Your task to perform on an android device: open a bookmark in the chrome app Image 0: 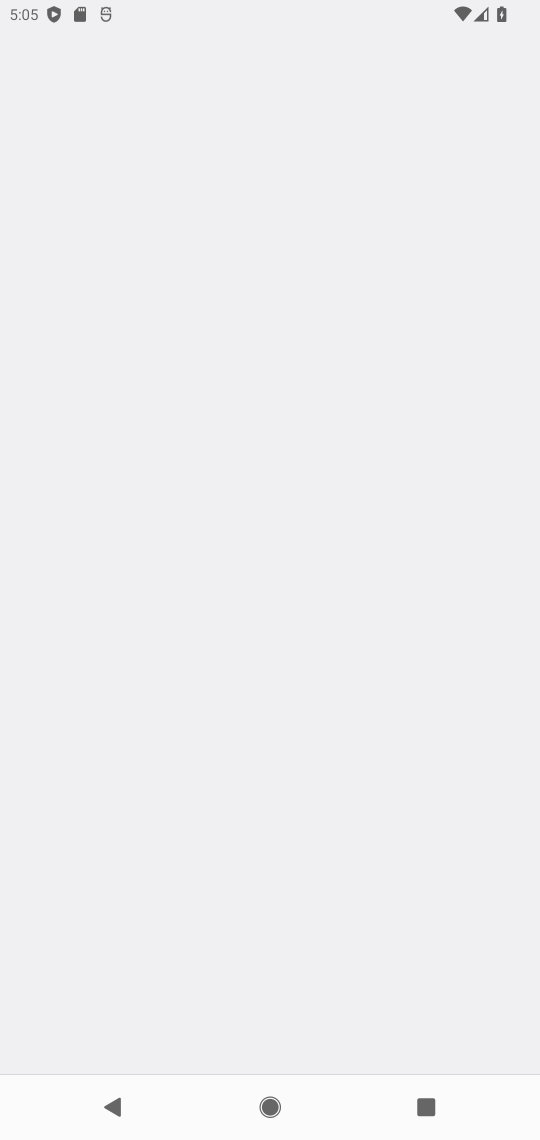
Step 0: drag from (432, 996) to (366, 267)
Your task to perform on an android device: open a bookmark in the chrome app Image 1: 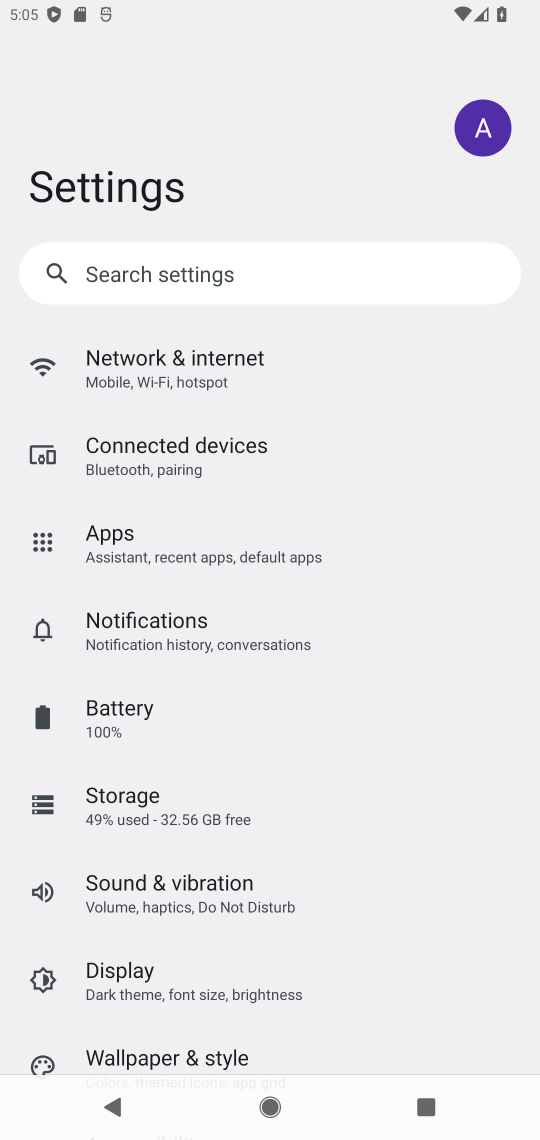
Step 1: press back button
Your task to perform on an android device: open a bookmark in the chrome app Image 2: 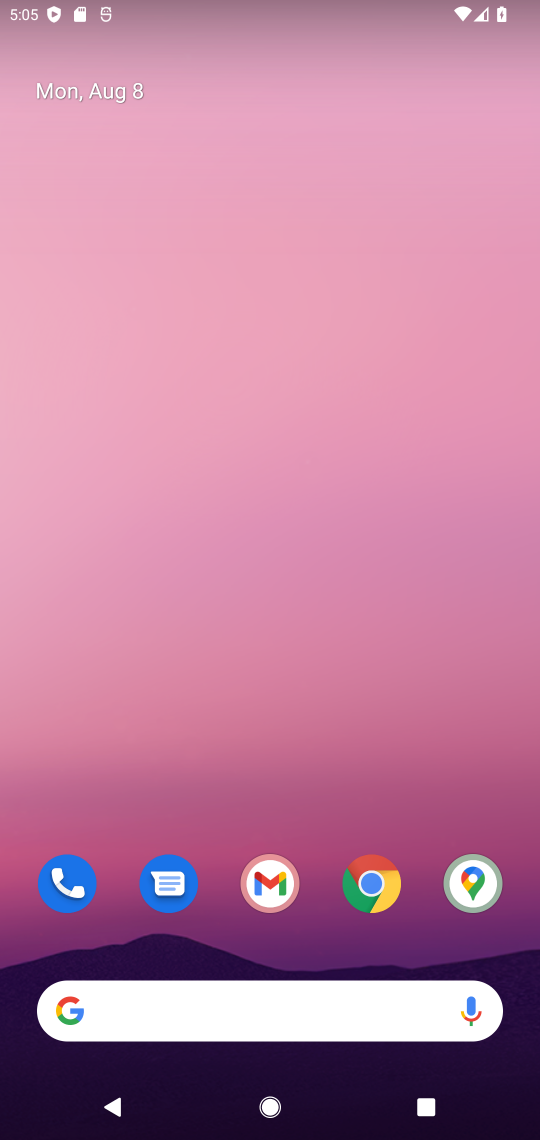
Step 2: drag from (423, 1087) to (287, 199)
Your task to perform on an android device: open a bookmark in the chrome app Image 3: 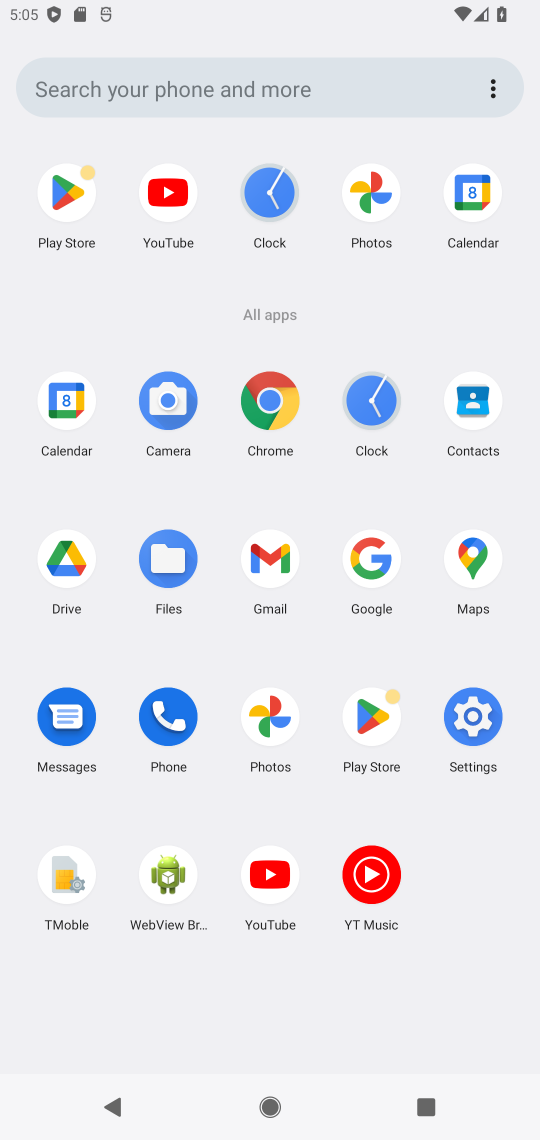
Step 3: click (269, 384)
Your task to perform on an android device: open a bookmark in the chrome app Image 4: 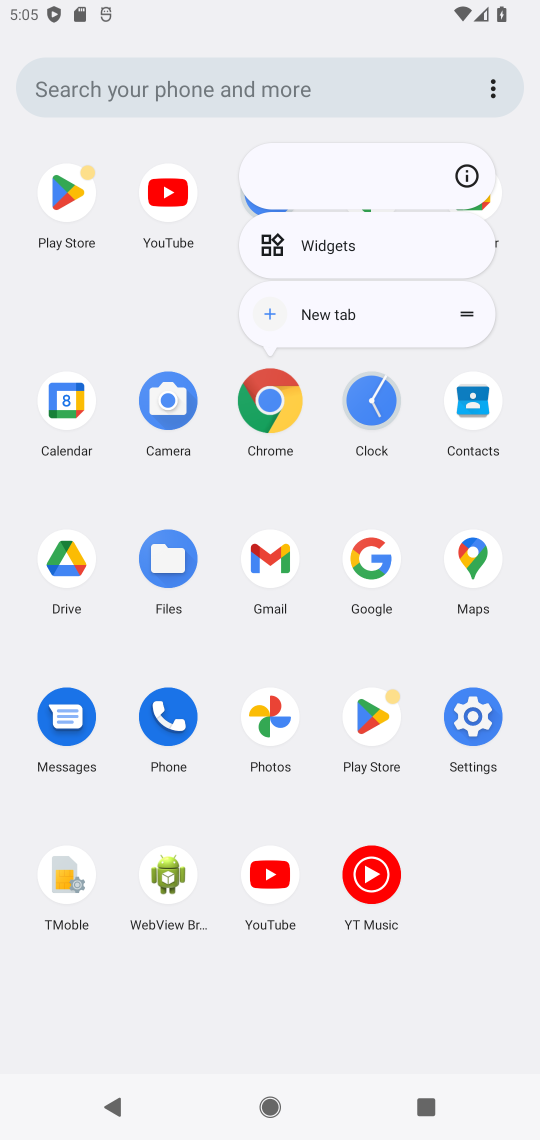
Step 4: click (273, 393)
Your task to perform on an android device: open a bookmark in the chrome app Image 5: 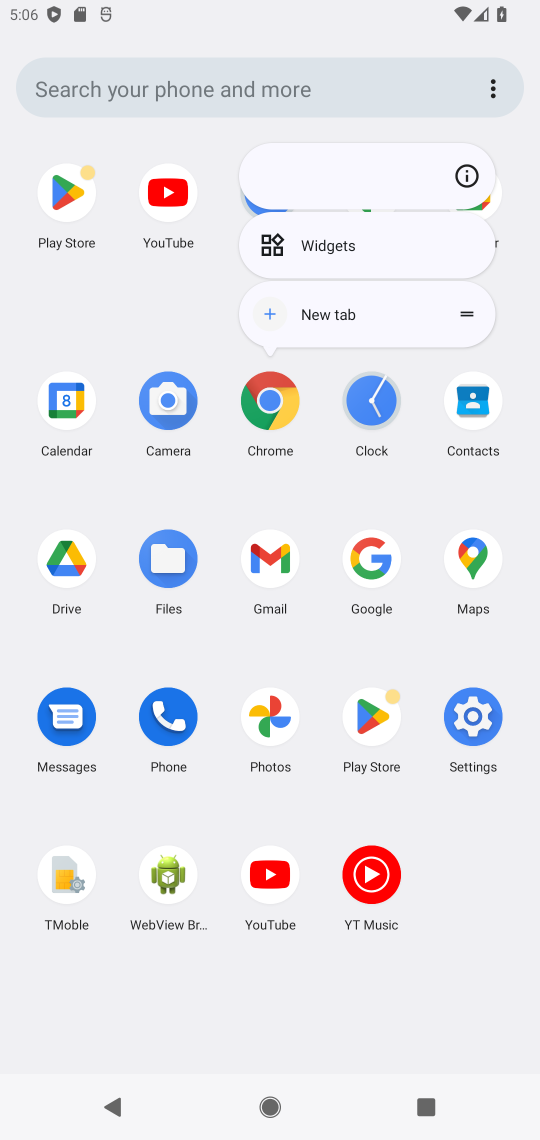
Step 5: click (275, 396)
Your task to perform on an android device: open a bookmark in the chrome app Image 6: 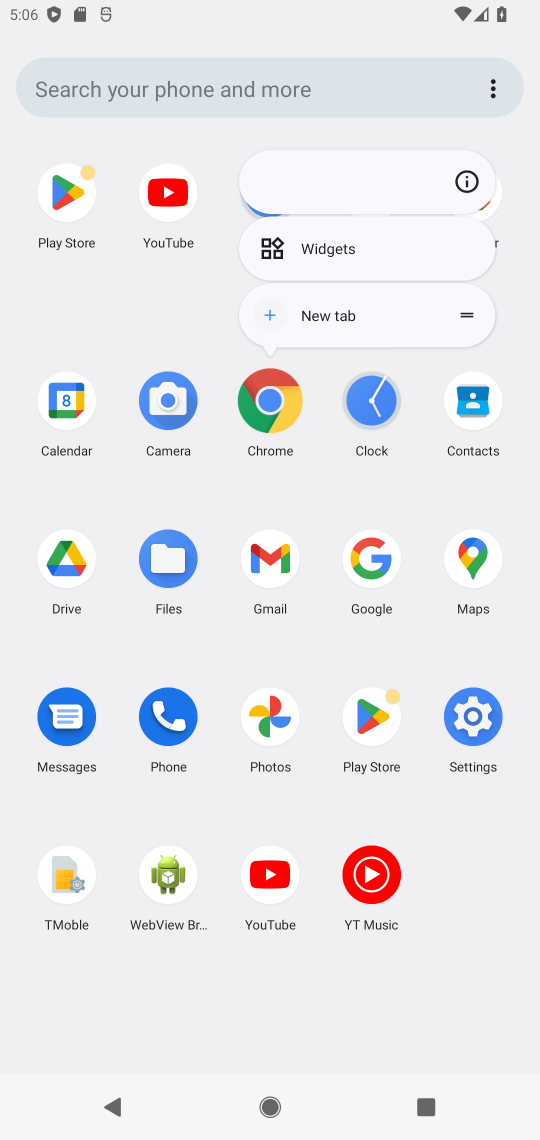
Step 6: click (264, 380)
Your task to perform on an android device: open a bookmark in the chrome app Image 7: 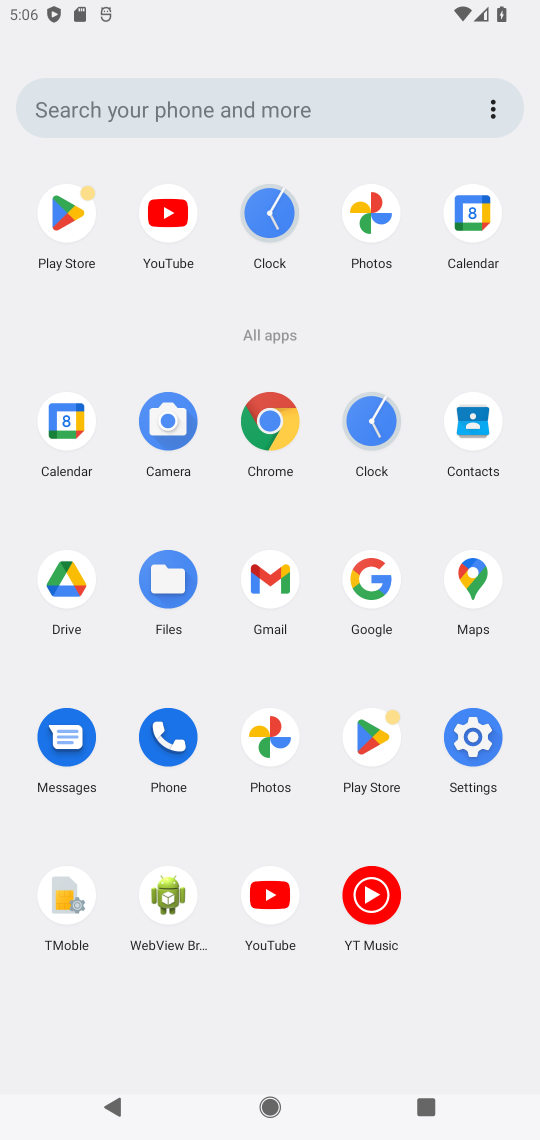
Step 7: click (273, 403)
Your task to perform on an android device: open a bookmark in the chrome app Image 8: 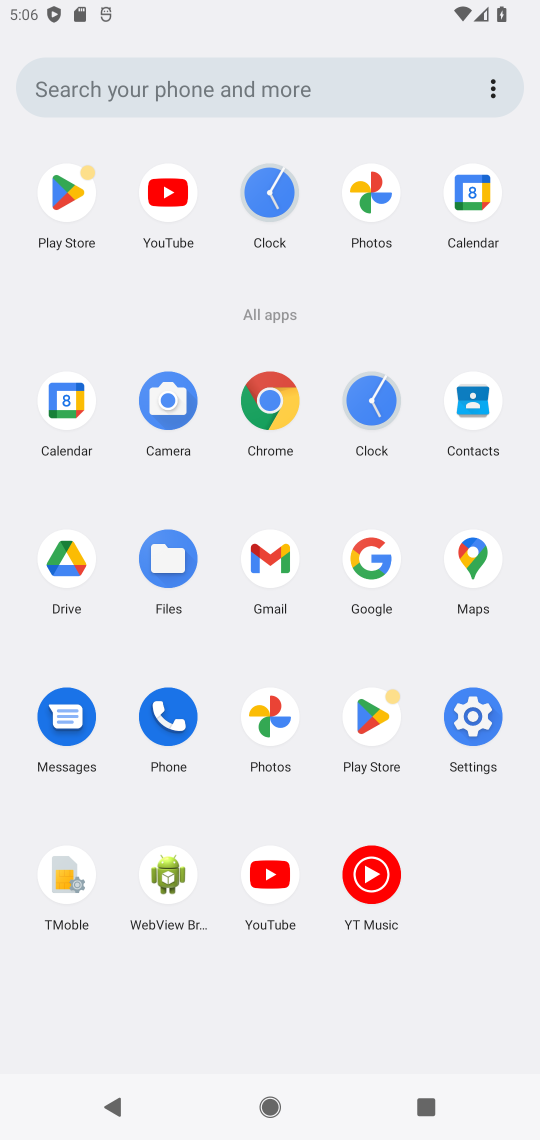
Step 8: click (279, 409)
Your task to perform on an android device: open a bookmark in the chrome app Image 9: 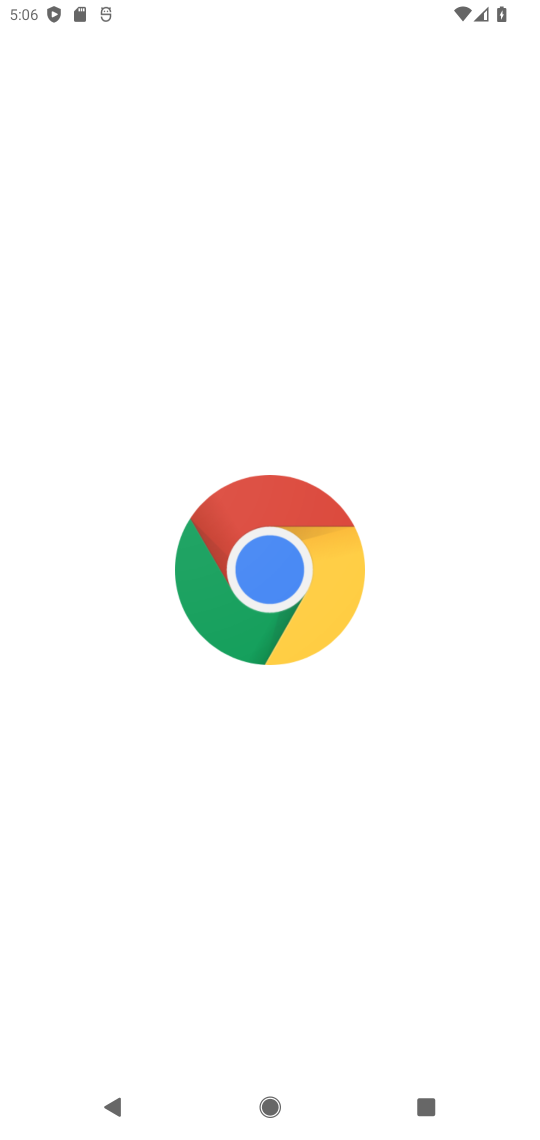
Step 9: click (333, 428)
Your task to perform on an android device: open a bookmark in the chrome app Image 10: 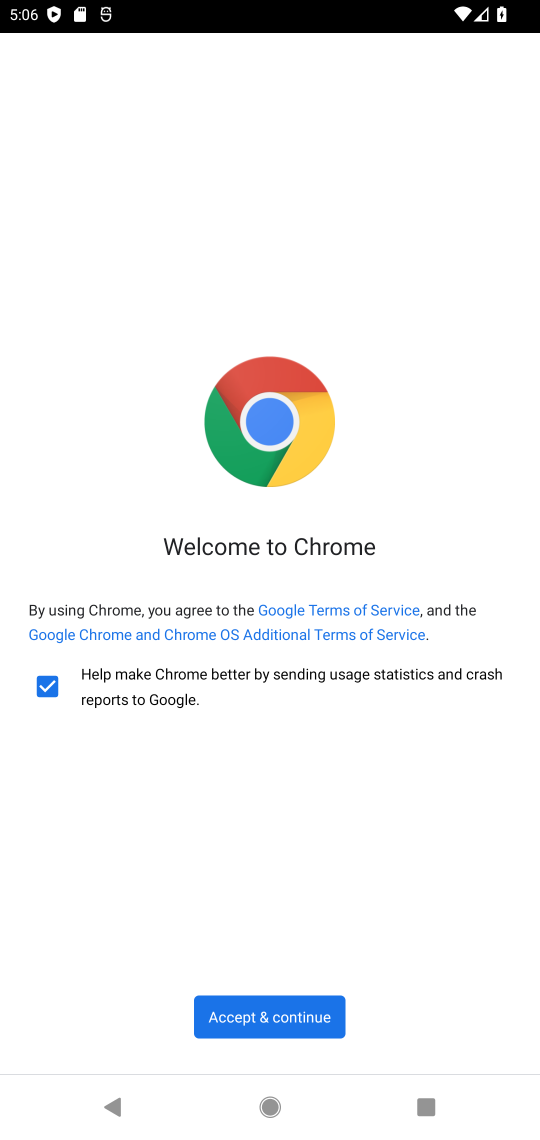
Step 10: click (285, 1012)
Your task to perform on an android device: open a bookmark in the chrome app Image 11: 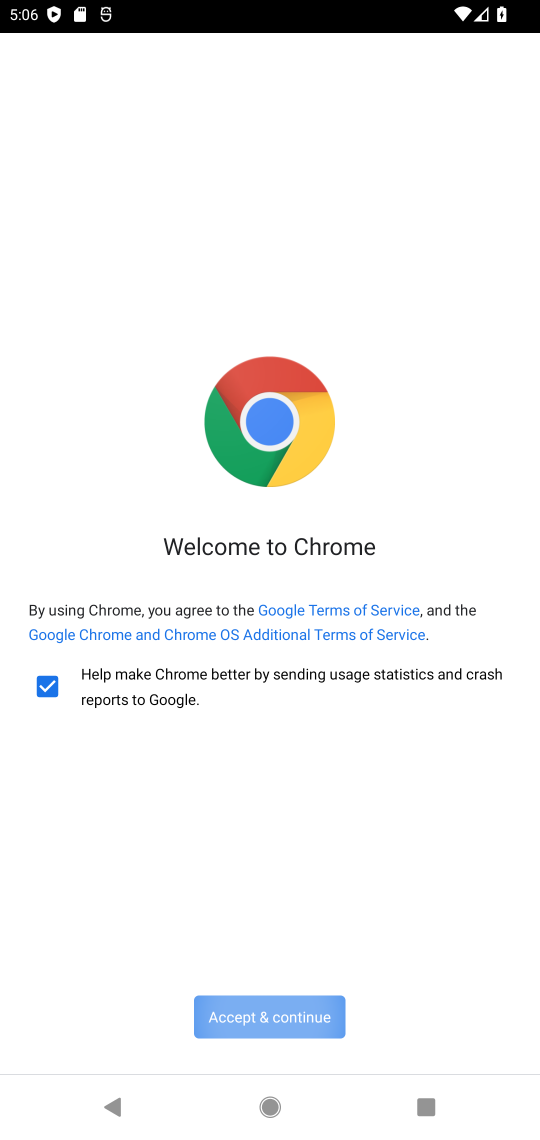
Step 11: click (294, 998)
Your task to perform on an android device: open a bookmark in the chrome app Image 12: 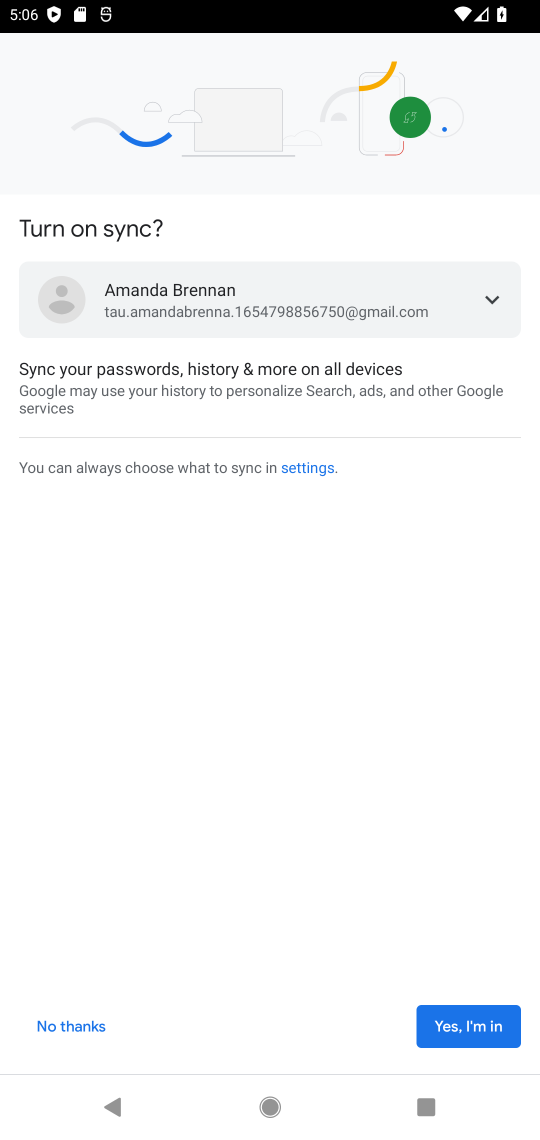
Step 12: click (325, 971)
Your task to perform on an android device: open a bookmark in the chrome app Image 13: 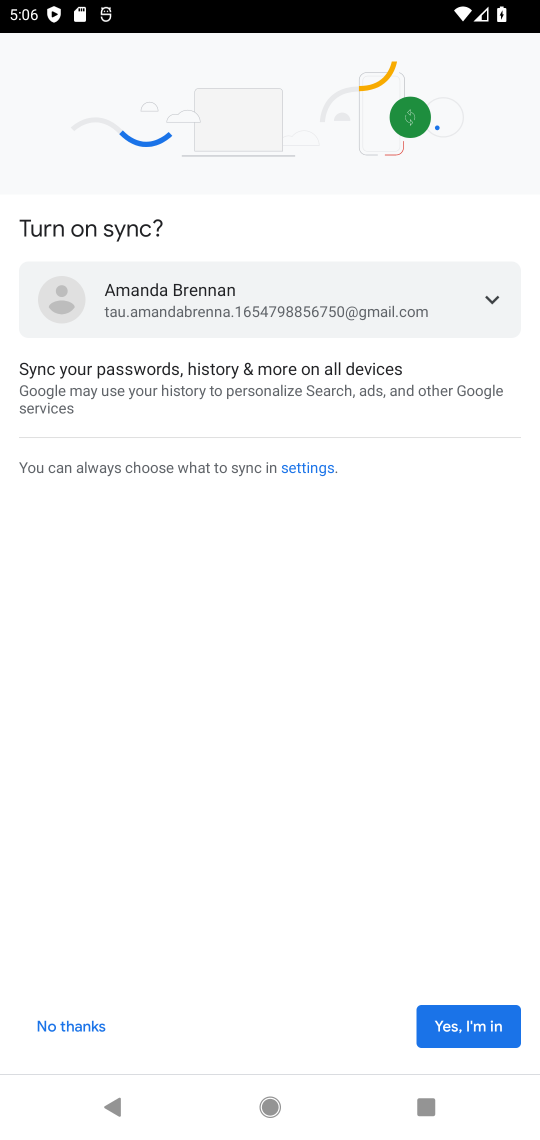
Step 13: click (77, 1039)
Your task to perform on an android device: open a bookmark in the chrome app Image 14: 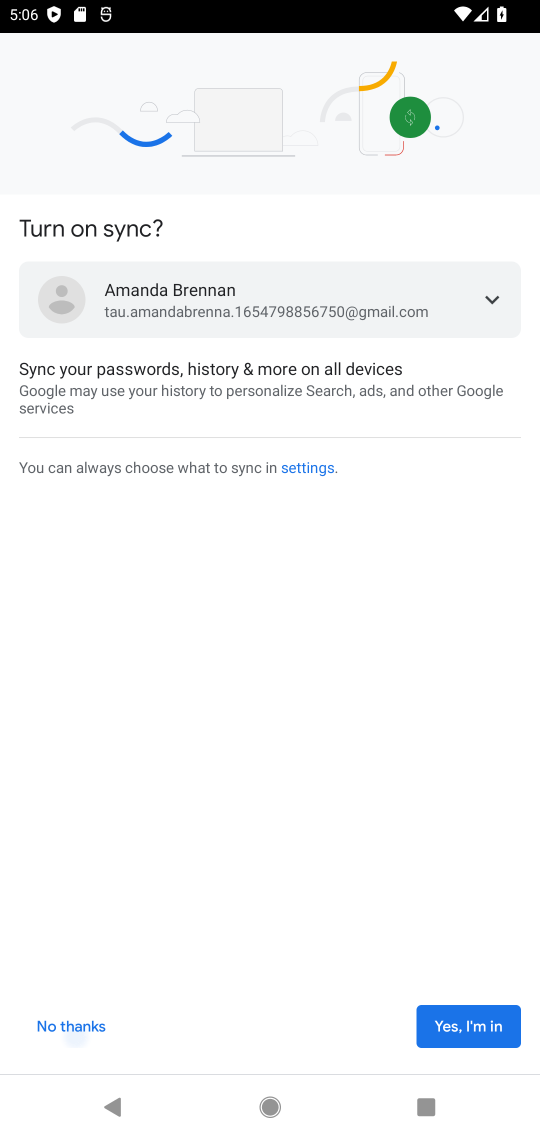
Step 14: click (70, 1029)
Your task to perform on an android device: open a bookmark in the chrome app Image 15: 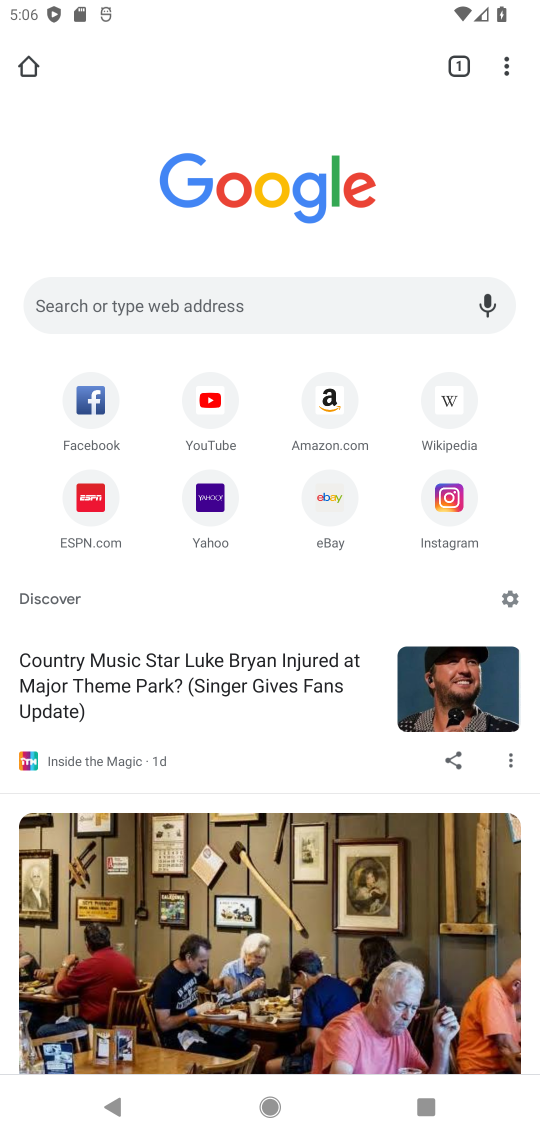
Step 15: drag from (512, 73) to (314, 366)
Your task to perform on an android device: open a bookmark in the chrome app Image 16: 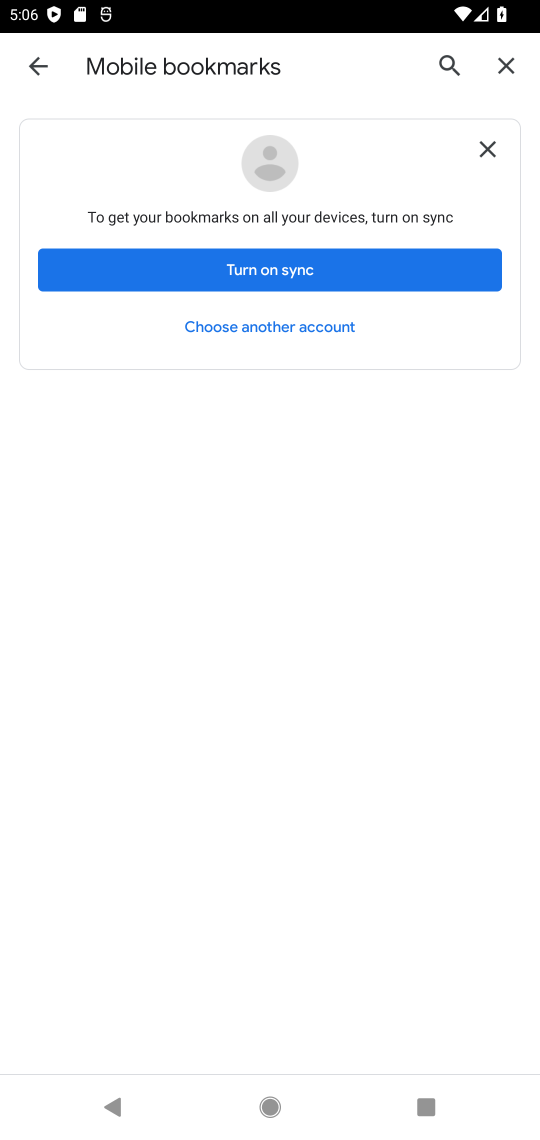
Step 16: click (37, 64)
Your task to perform on an android device: open a bookmark in the chrome app Image 17: 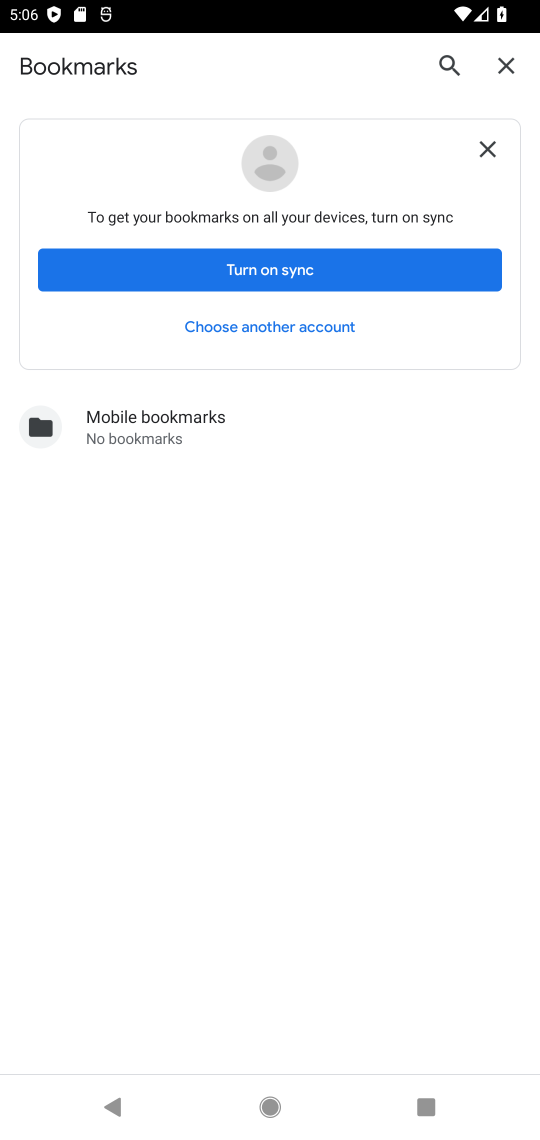
Step 17: click (494, 131)
Your task to perform on an android device: open a bookmark in the chrome app Image 18: 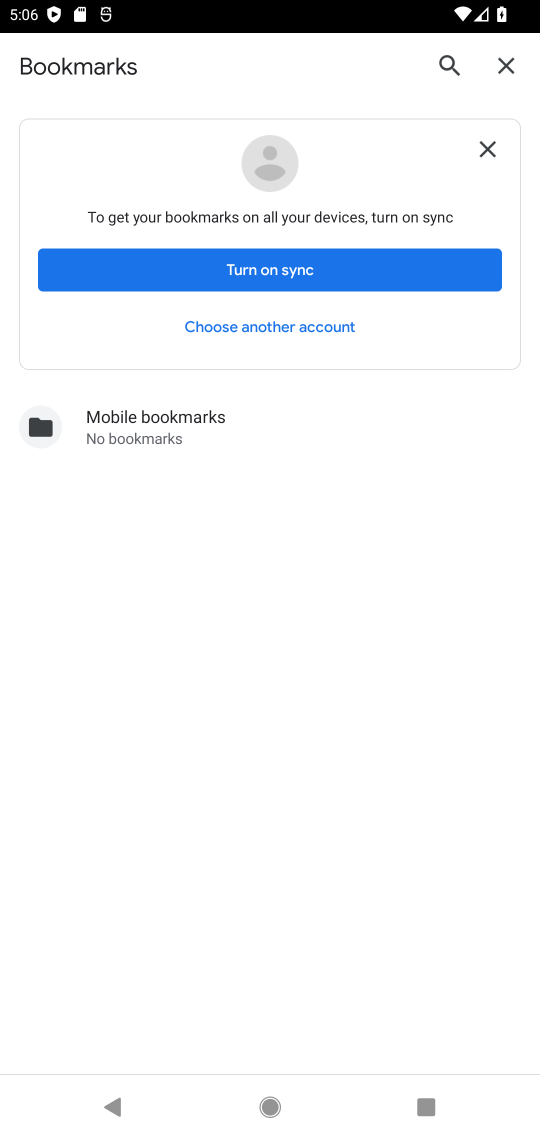
Step 18: click (499, 97)
Your task to perform on an android device: open a bookmark in the chrome app Image 19: 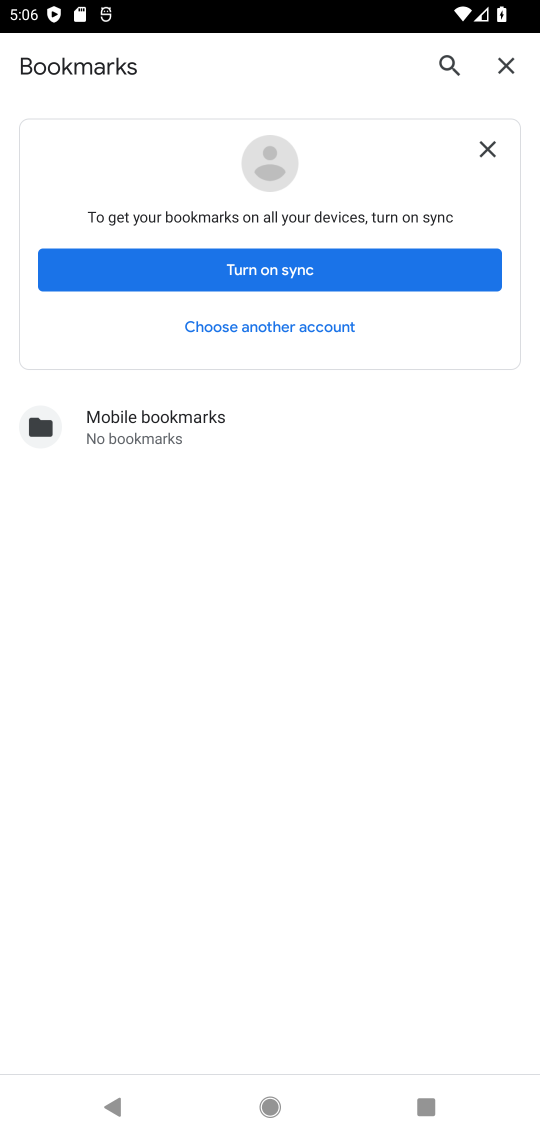
Step 19: click (485, 138)
Your task to perform on an android device: open a bookmark in the chrome app Image 20: 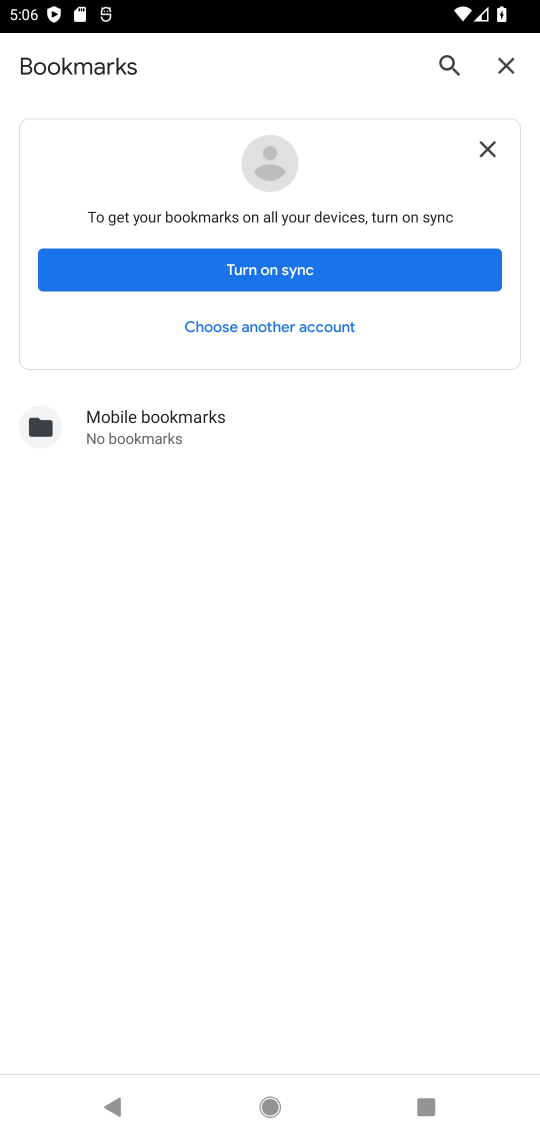
Step 20: click (485, 138)
Your task to perform on an android device: open a bookmark in the chrome app Image 21: 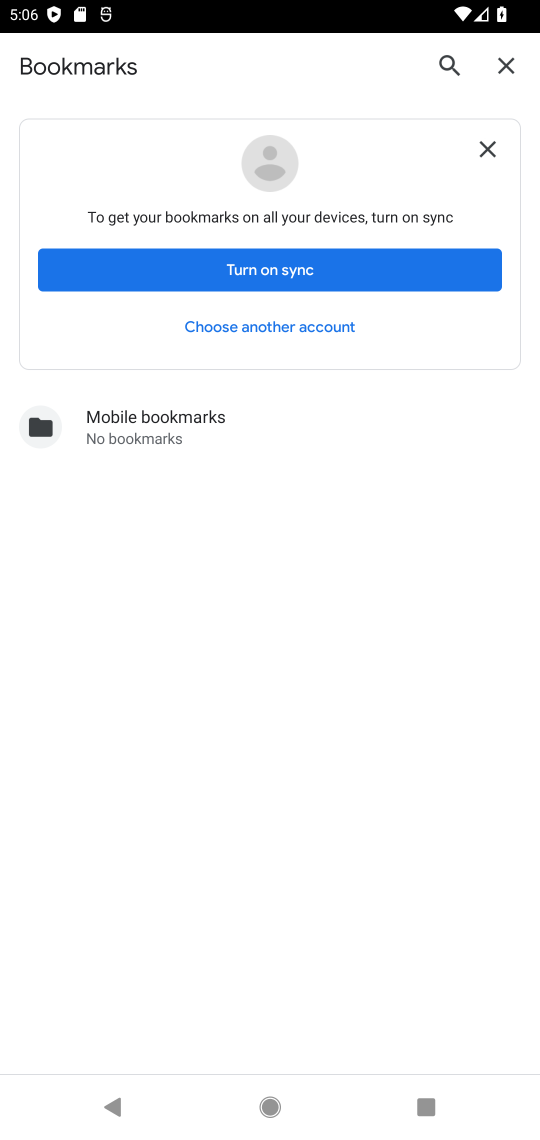
Step 21: click (486, 143)
Your task to perform on an android device: open a bookmark in the chrome app Image 22: 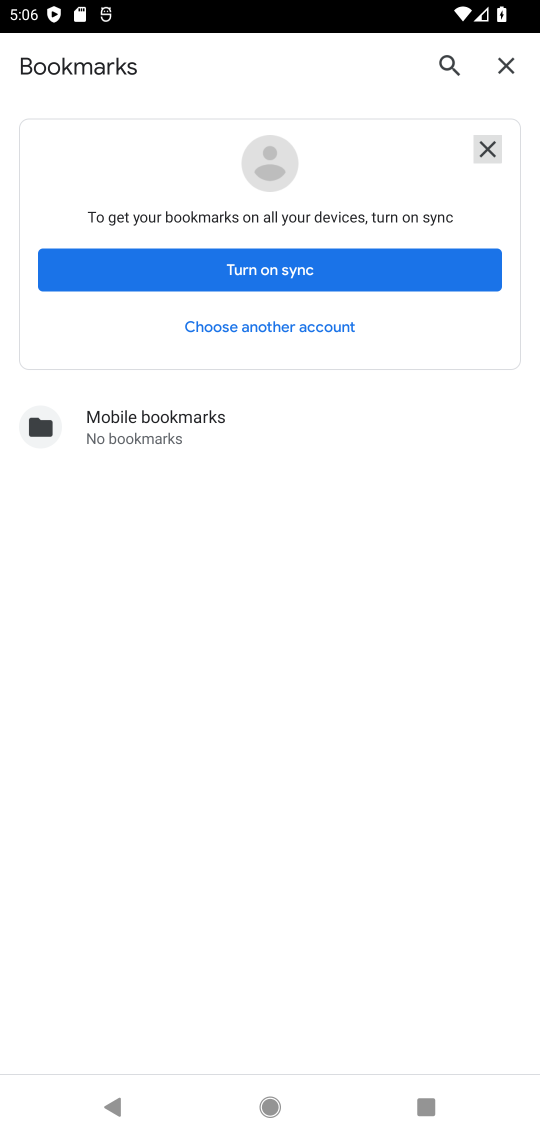
Step 22: click (488, 133)
Your task to perform on an android device: open a bookmark in the chrome app Image 23: 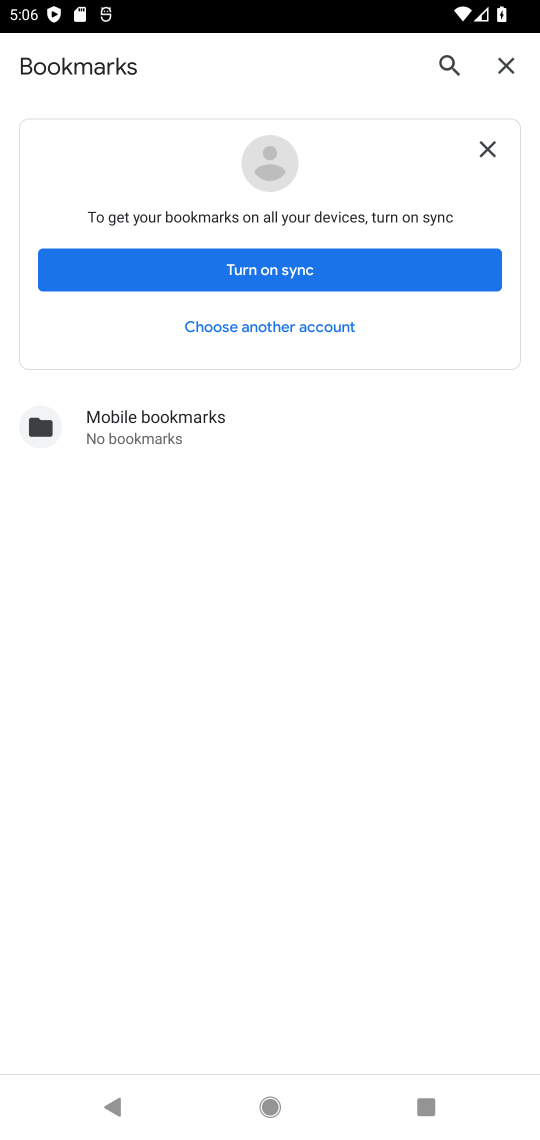
Step 23: click (490, 141)
Your task to perform on an android device: open a bookmark in the chrome app Image 24: 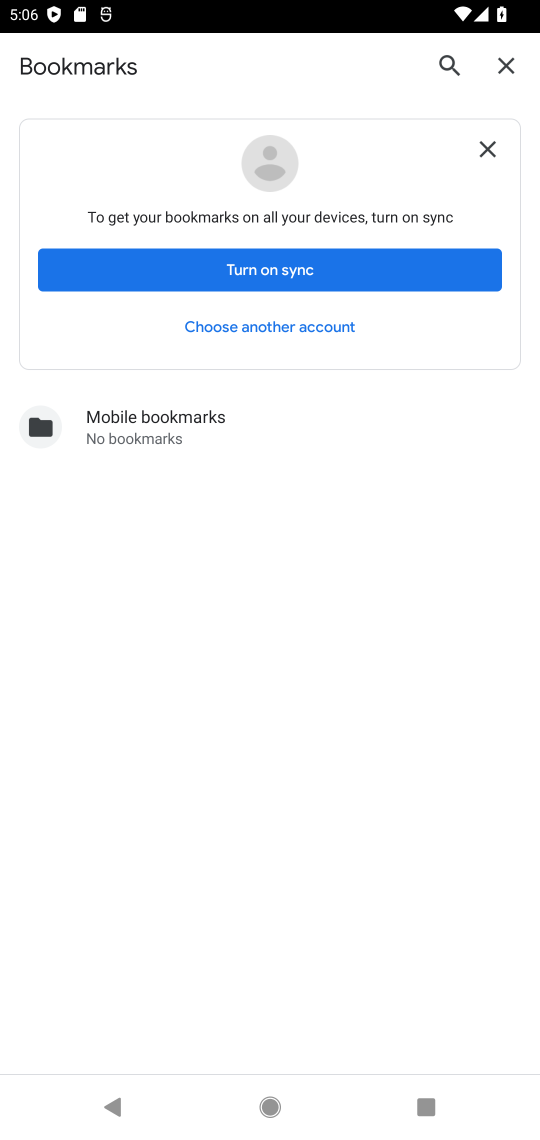
Step 24: click (489, 147)
Your task to perform on an android device: open a bookmark in the chrome app Image 25: 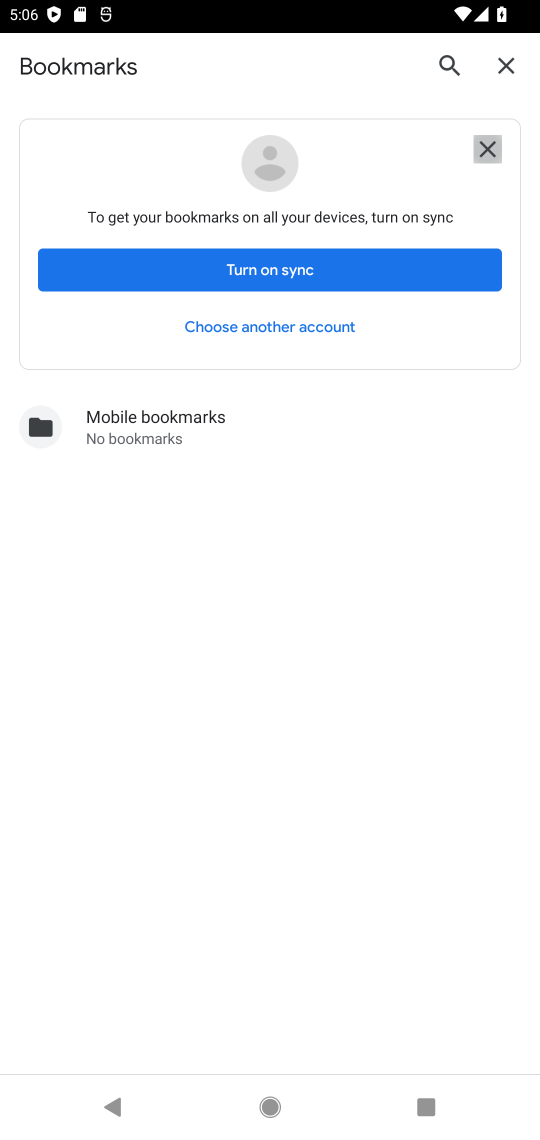
Step 25: click (493, 120)
Your task to perform on an android device: open a bookmark in the chrome app Image 26: 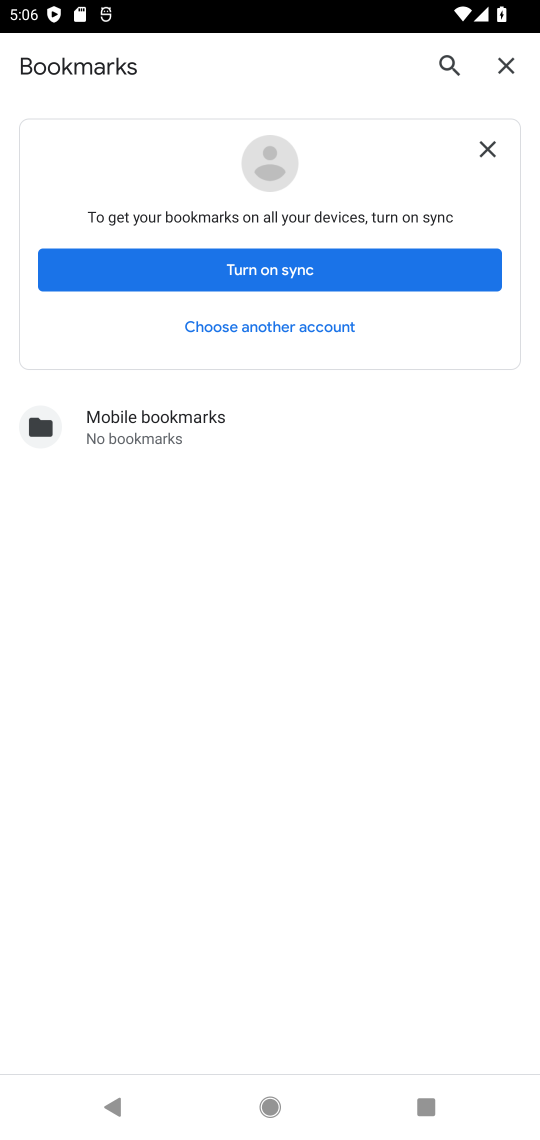
Step 26: click (483, 136)
Your task to perform on an android device: open a bookmark in the chrome app Image 27: 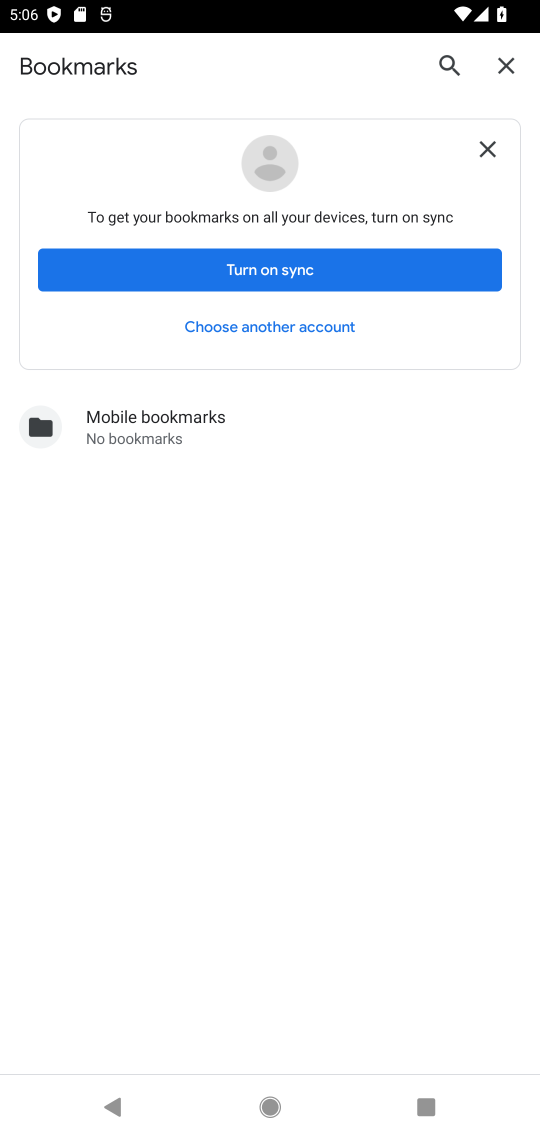
Step 27: click (489, 137)
Your task to perform on an android device: open a bookmark in the chrome app Image 28: 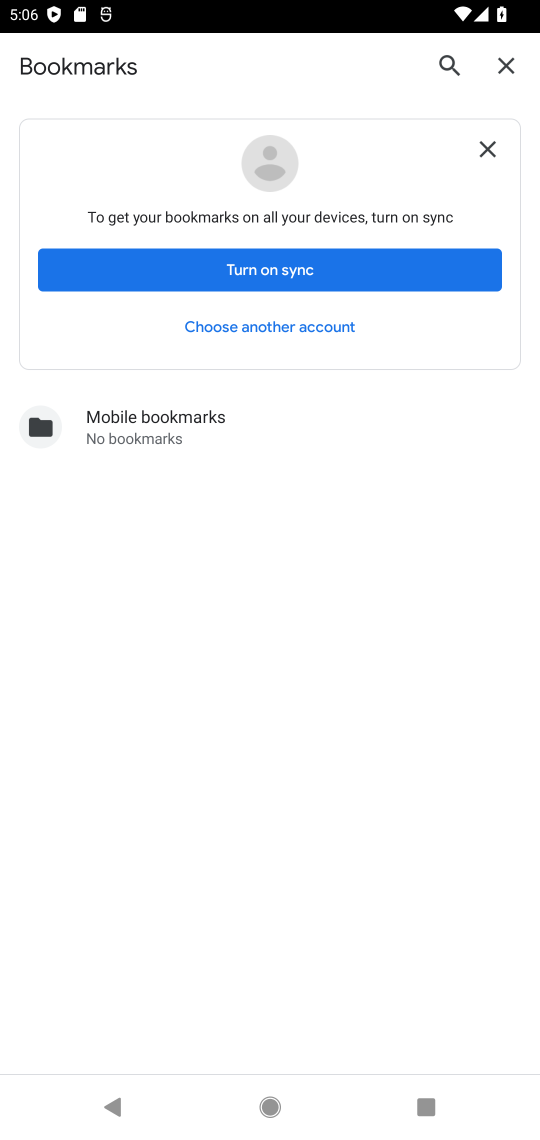
Step 28: task complete